Your task to perform on an android device: Add corsair k70 to the cart on target.com, then select checkout. Image 0: 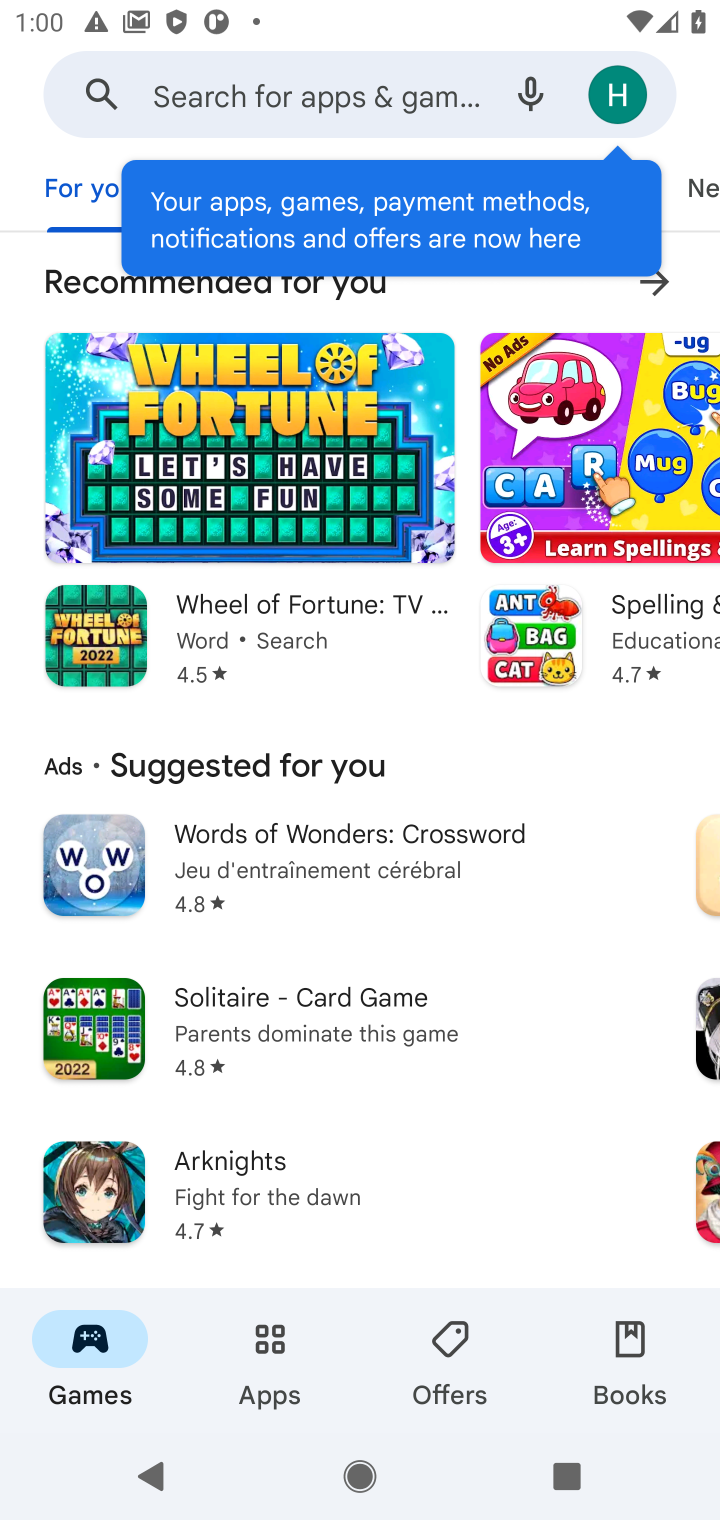
Step 0: press home button
Your task to perform on an android device: Add corsair k70 to the cart on target.com, then select checkout. Image 1: 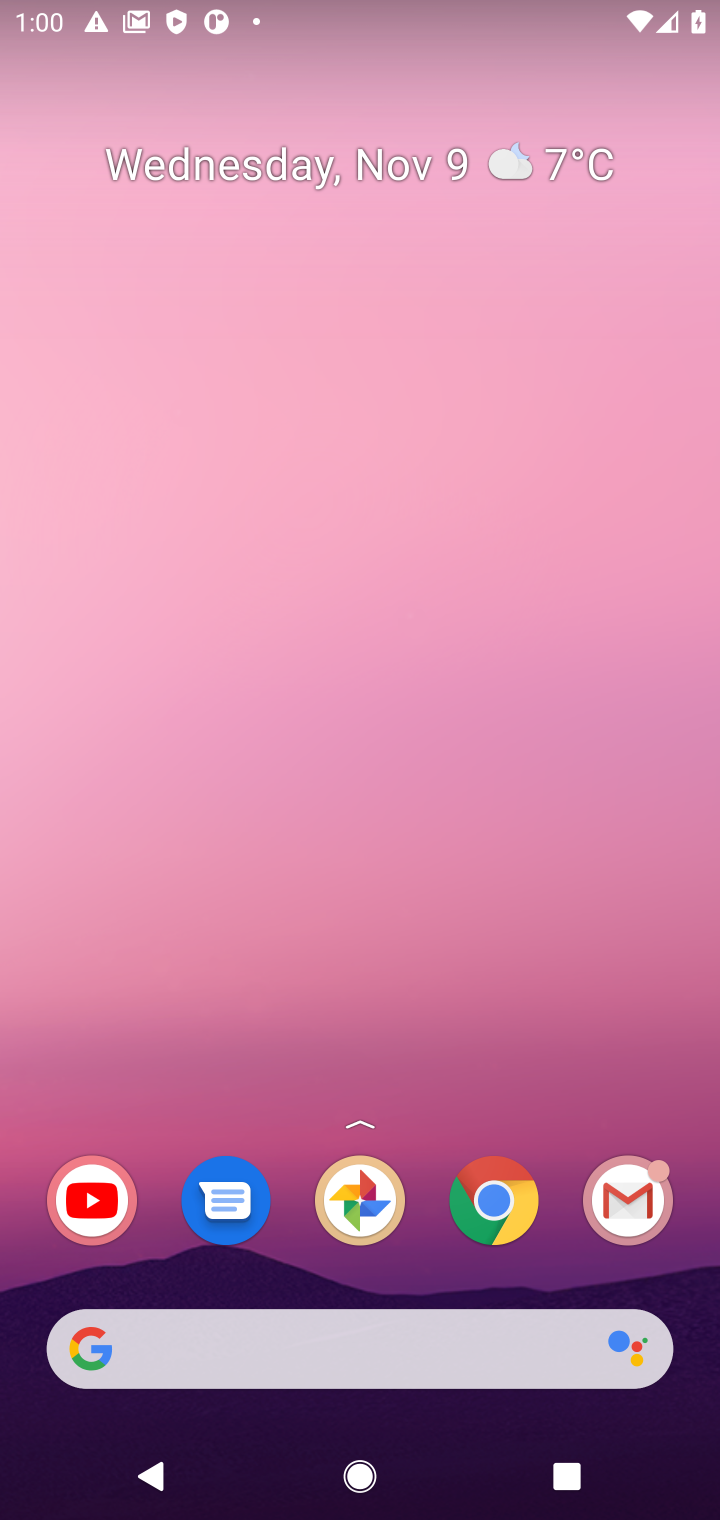
Step 1: click (230, 1325)
Your task to perform on an android device: Add corsair k70 to the cart on target.com, then select checkout. Image 2: 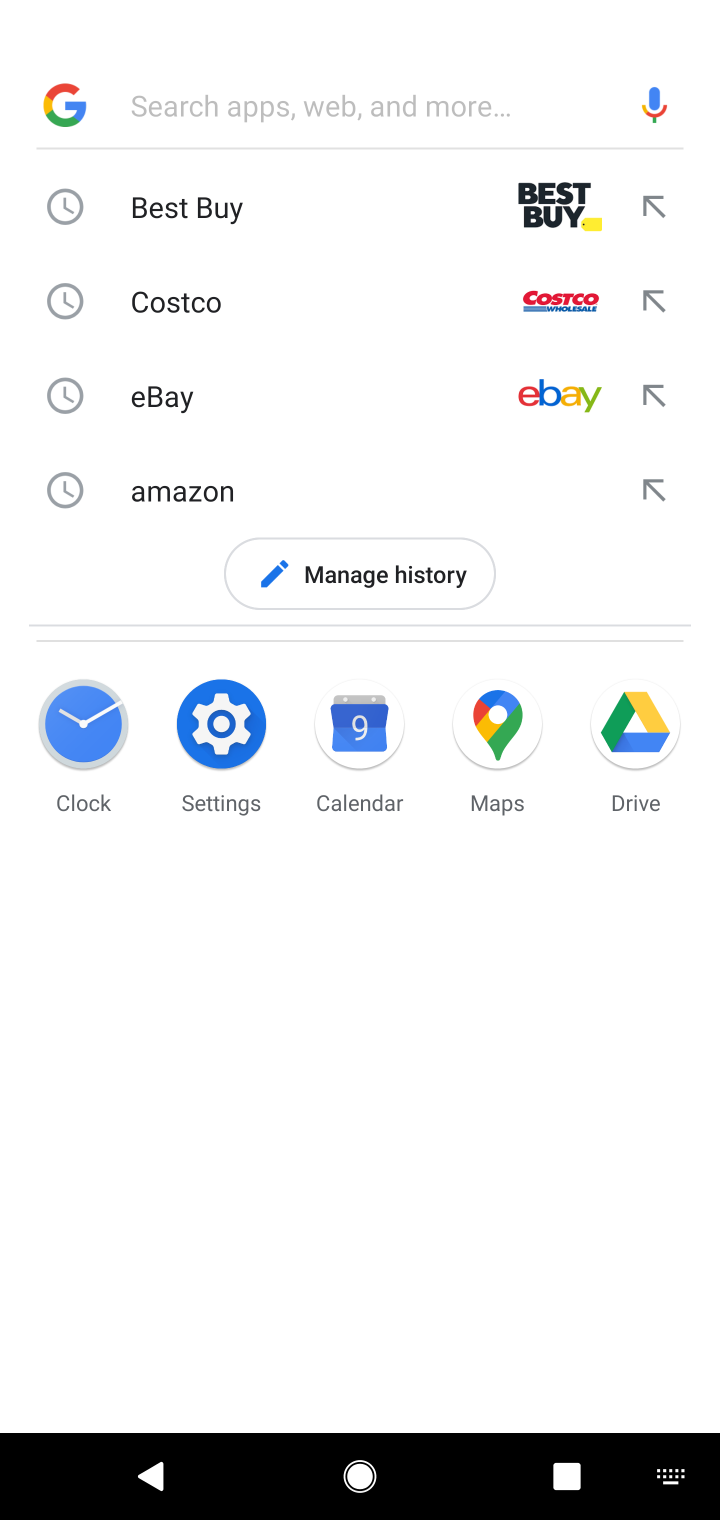
Step 2: task complete